Your task to perform on an android device: delete location history Image 0: 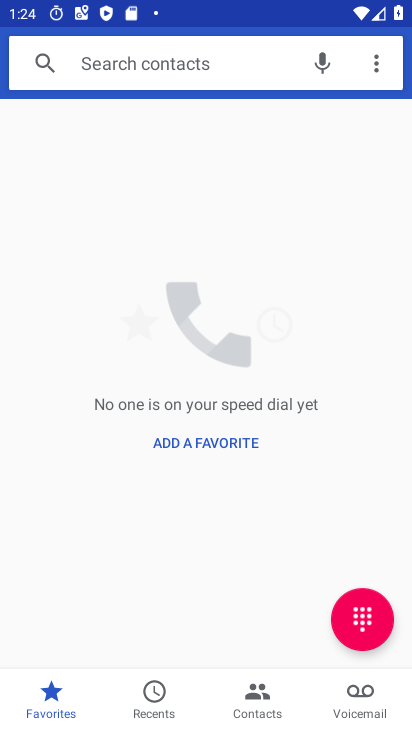
Step 0: press home button
Your task to perform on an android device: delete location history Image 1: 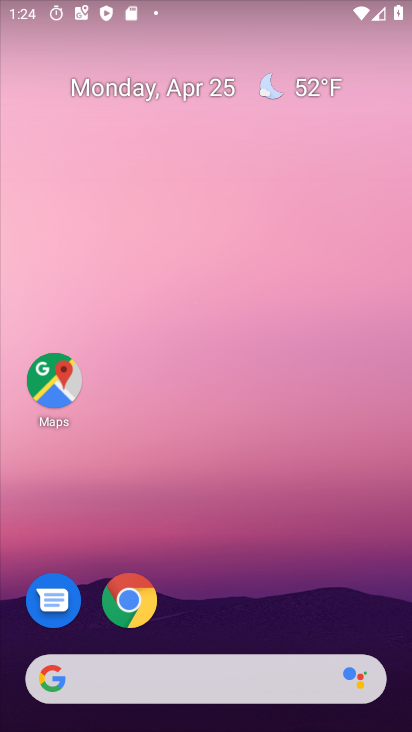
Step 1: drag from (161, 669) to (269, 203)
Your task to perform on an android device: delete location history Image 2: 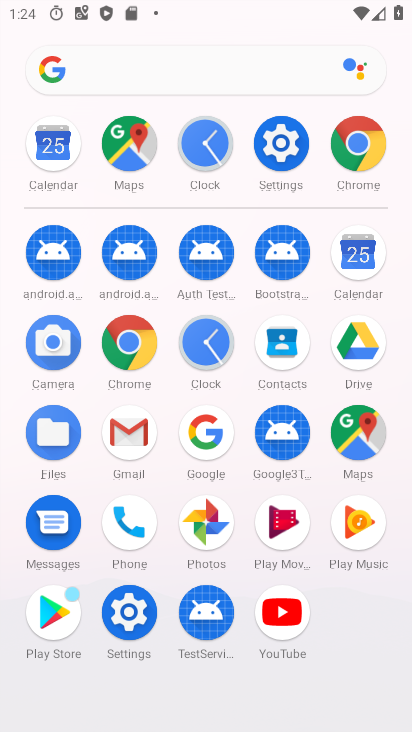
Step 2: click (359, 445)
Your task to perform on an android device: delete location history Image 3: 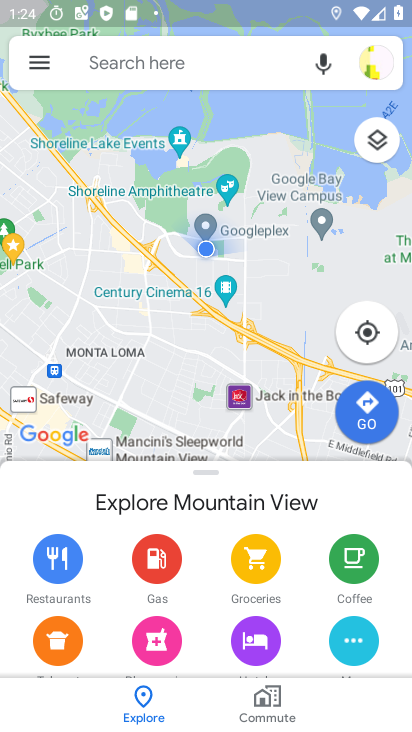
Step 3: click (52, 60)
Your task to perform on an android device: delete location history Image 4: 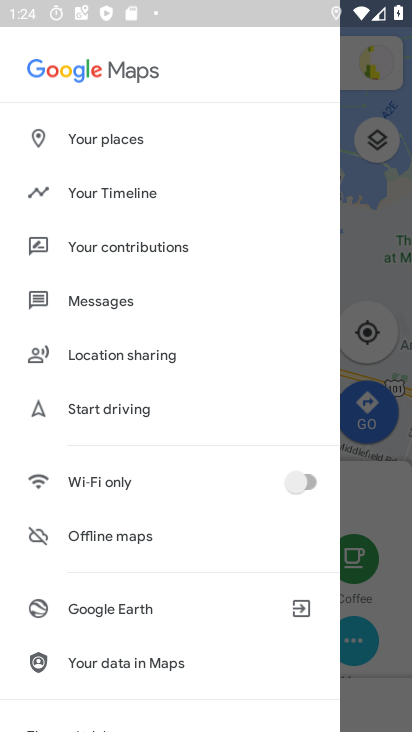
Step 4: click (120, 194)
Your task to perform on an android device: delete location history Image 5: 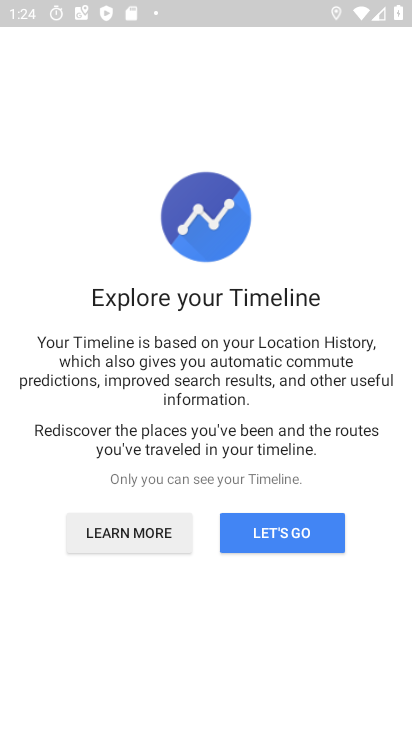
Step 5: click (270, 536)
Your task to perform on an android device: delete location history Image 6: 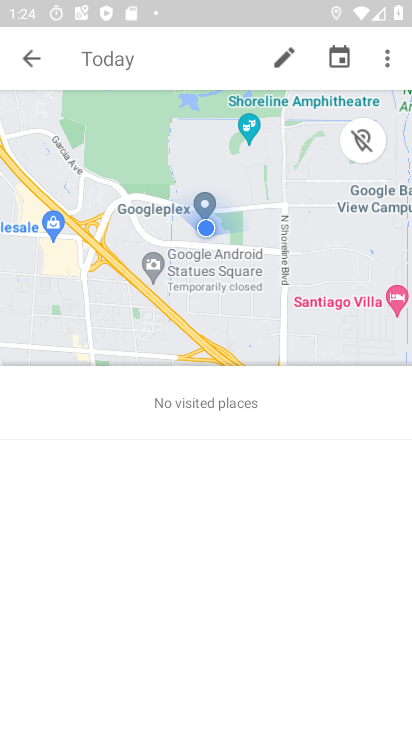
Step 6: click (386, 60)
Your task to perform on an android device: delete location history Image 7: 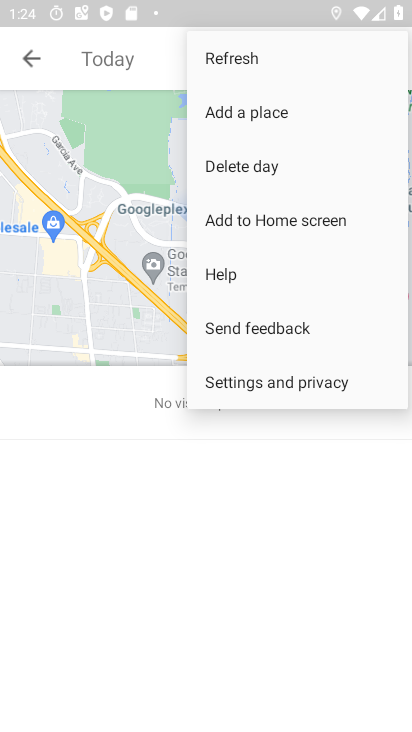
Step 7: click (247, 391)
Your task to perform on an android device: delete location history Image 8: 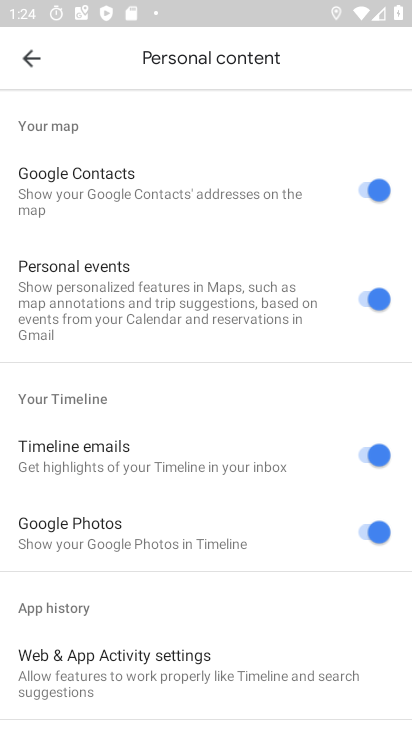
Step 8: drag from (127, 625) to (295, 165)
Your task to perform on an android device: delete location history Image 9: 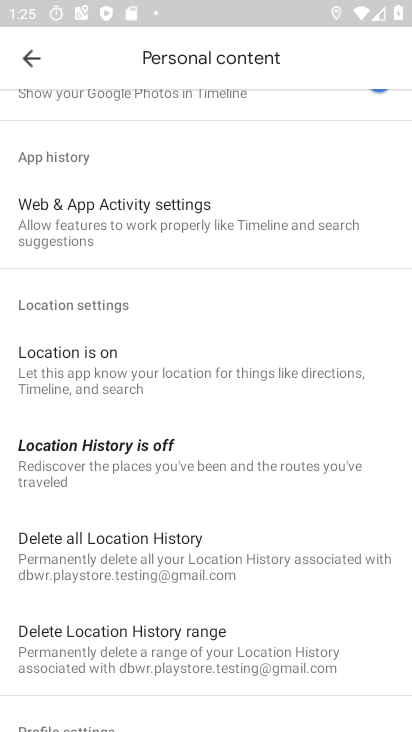
Step 9: click (128, 576)
Your task to perform on an android device: delete location history Image 10: 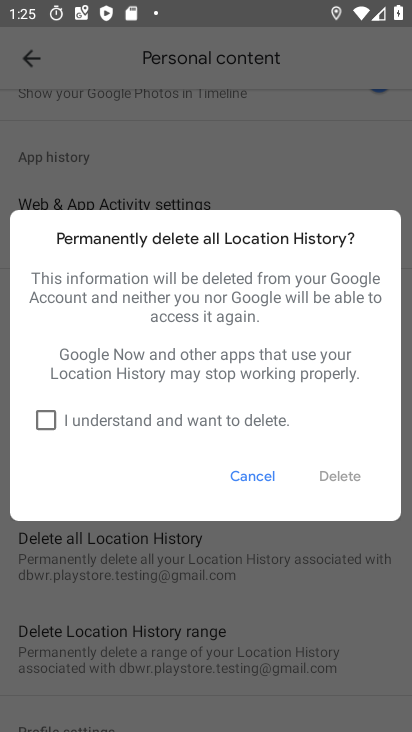
Step 10: click (44, 416)
Your task to perform on an android device: delete location history Image 11: 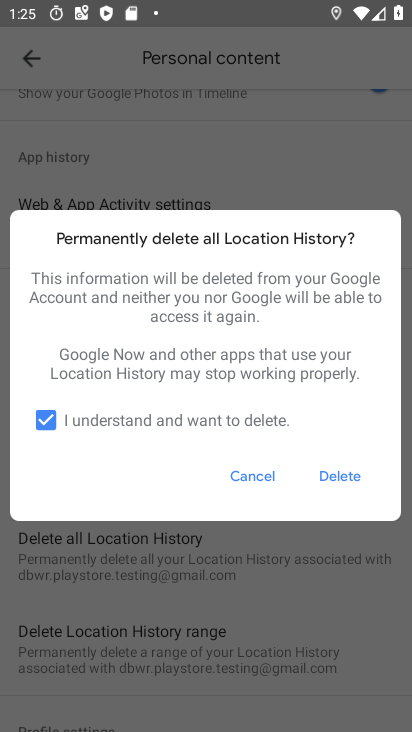
Step 11: click (333, 474)
Your task to perform on an android device: delete location history Image 12: 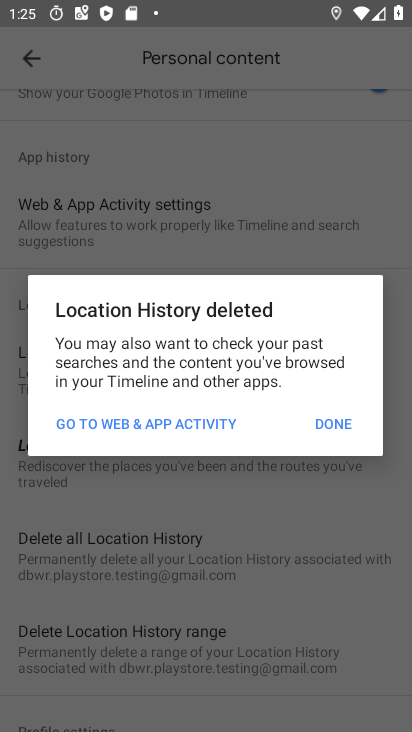
Step 12: click (330, 421)
Your task to perform on an android device: delete location history Image 13: 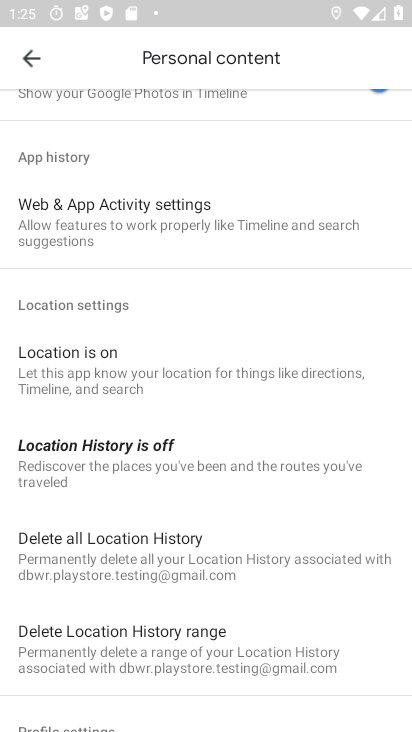
Step 13: task complete